Your task to perform on an android device: Open CNN.com Image 0: 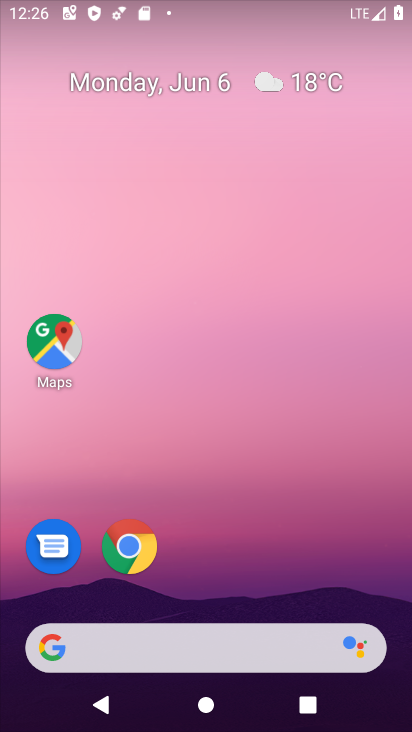
Step 0: click (206, 658)
Your task to perform on an android device: Open CNN.com Image 1: 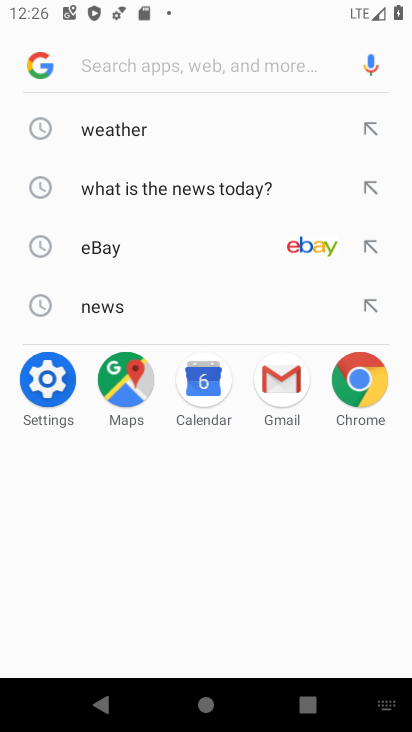
Step 1: type "CNN.com"
Your task to perform on an android device: Open CNN.com Image 2: 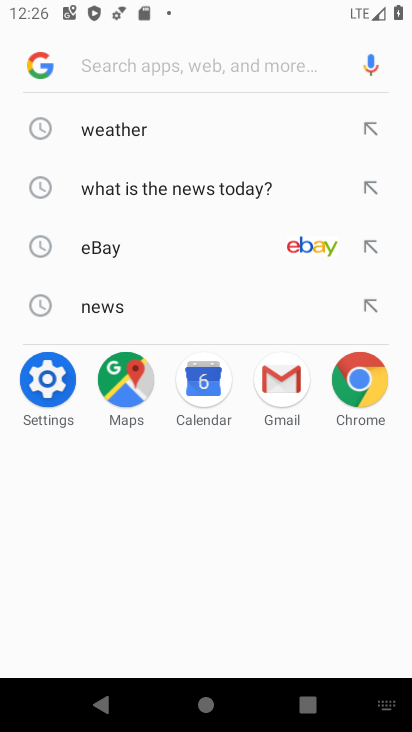
Step 2: click (207, 57)
Your task to perform on an android device: Open CNN.com Image 3: 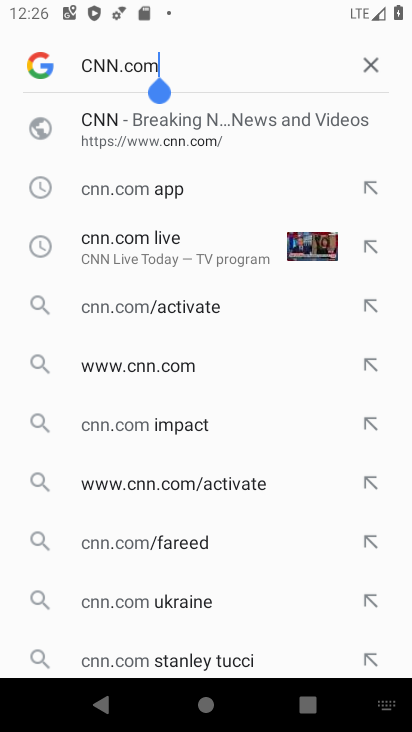
Step 3: click (166, 134)
Your task to perform on an android device: Open CNN.com Image 4: 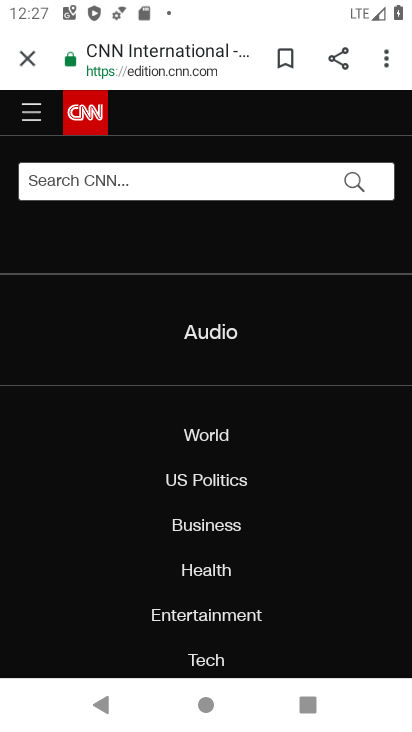
Step 4: task complete